Your task to perform on an android device: Open CNN.com Image 0: 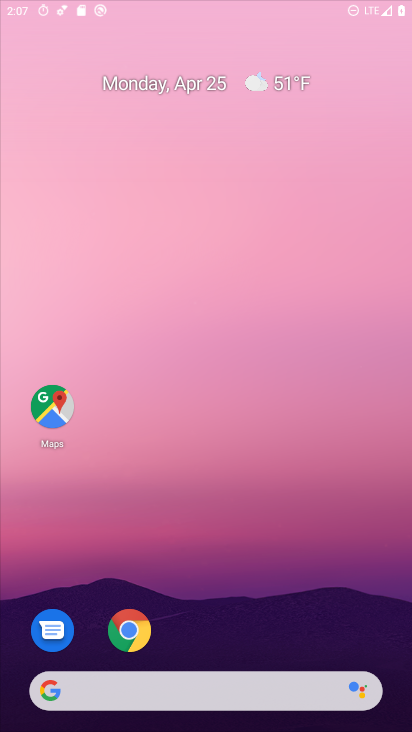
Step 0: click (235, 238)
Your task to perform on an android device: Open CNN.com Image 1: 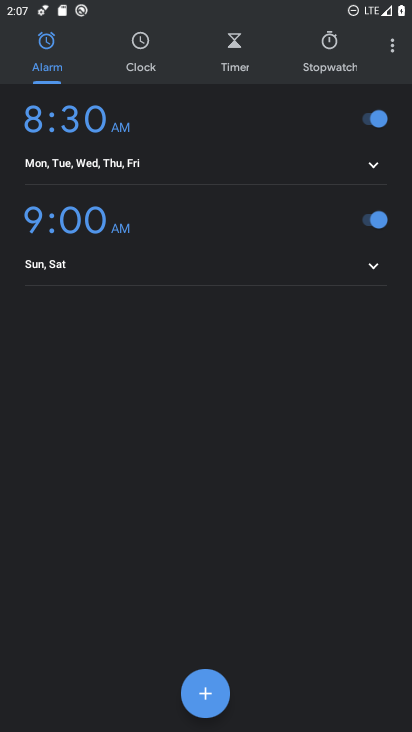
Step 1: press home button
Your task to perform on an android device: Open CNN.com Image 2: 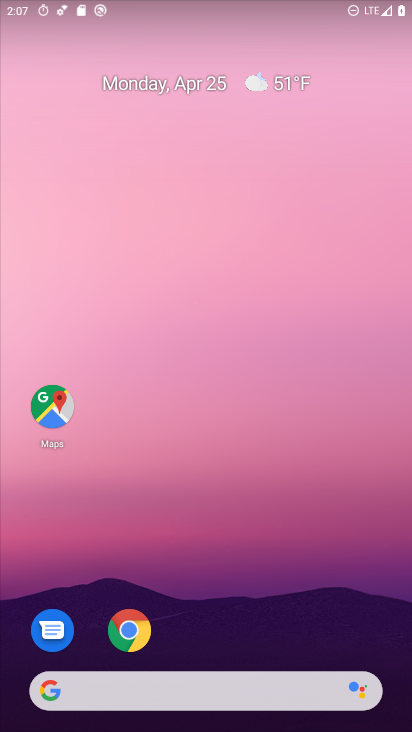
Step 2: drag from (219, 572) to (186, 0)
Your task to perform on an android device: Open CNN.com Image 3: 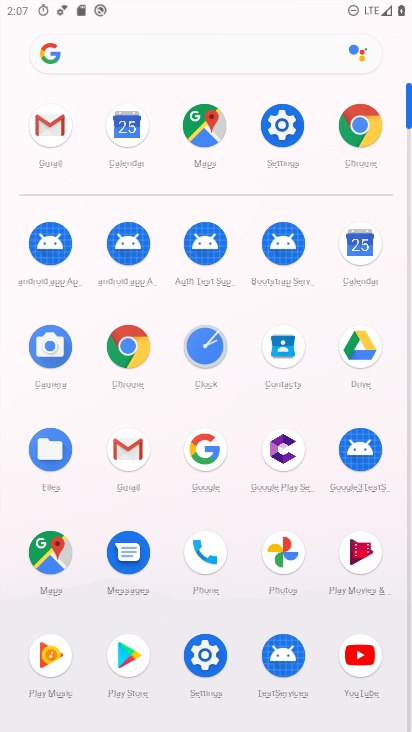
Step 3: click (204, 61)
Your task to perform on an android device: Open CNN.com Image 4: 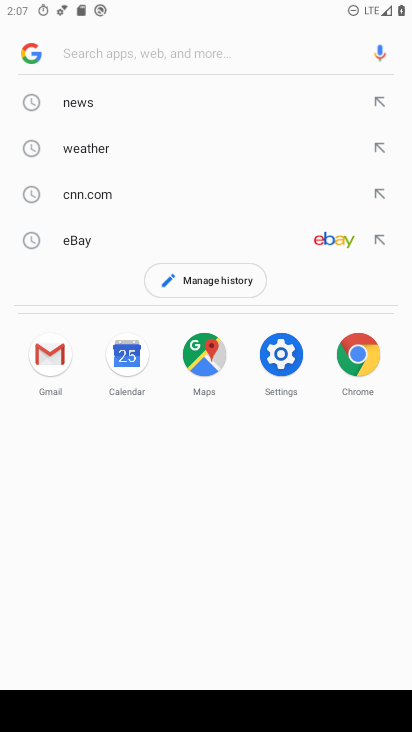
Step 4: click (95, 199)
Your task to perform on an android device: Open CNN.com Image 5: 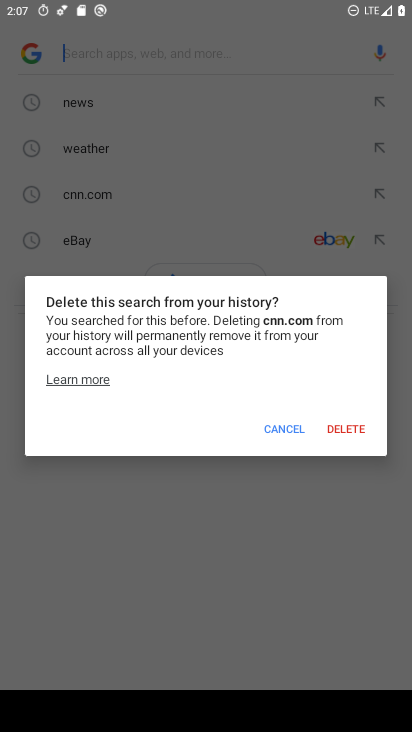
Step 5: click (335, 442)
Your task to perform on an android device: Open CNN.com Image 6: 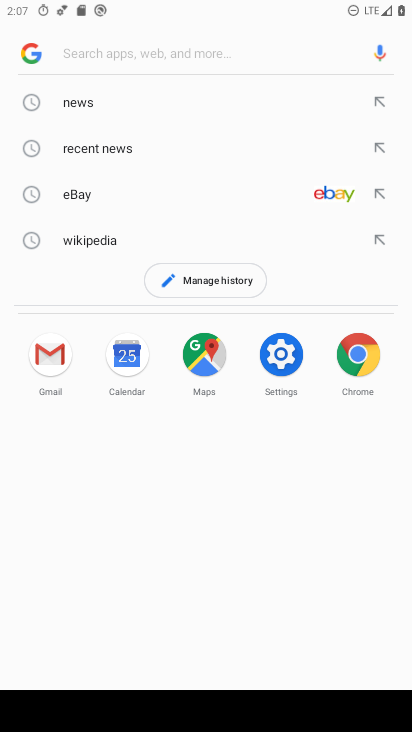
Step 6: click (127, 53)
Your task to perform on an android device: Open CNN.com Image 7: 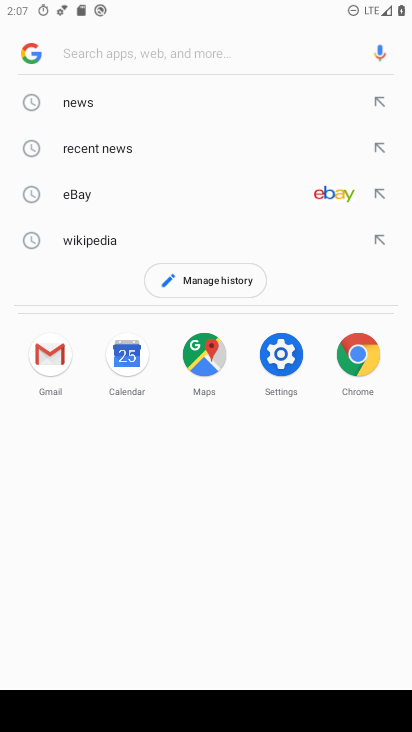
Step 7: type "cnn.com"
Your task to perform on an android device: Open CNN.com Image 8: 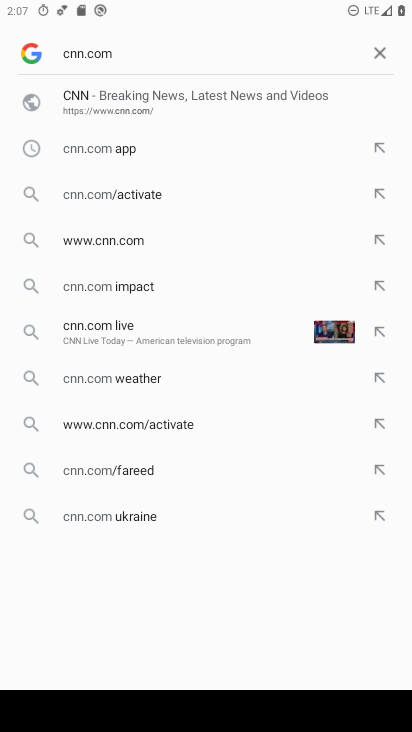
Step 8: click (132, 105)
Your task to perform on an android device: Open CNN.com Image 9: 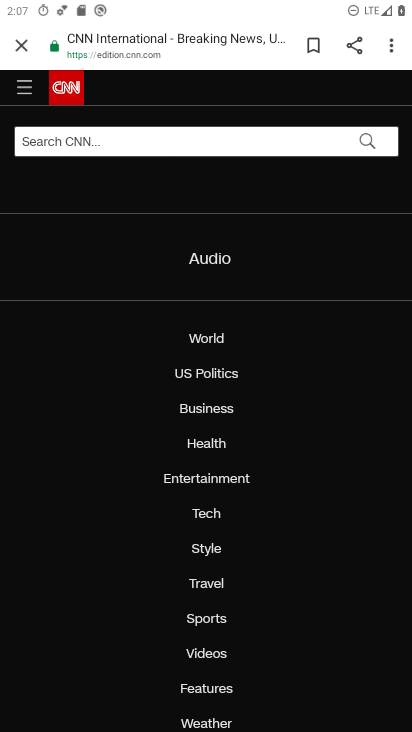
Step 9: task complete